Your task to perform on an android device: Show me productivity apps on the Play Store Image 0: 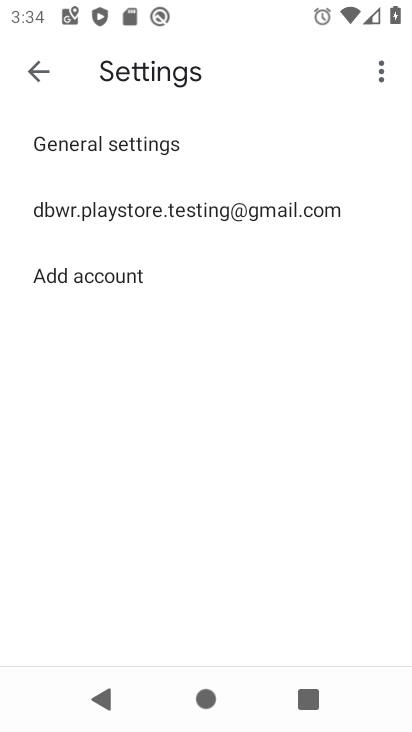
Step 0: press home button
Your task to perform on an android device: Show me productivity apps on the Play Store Image 1: 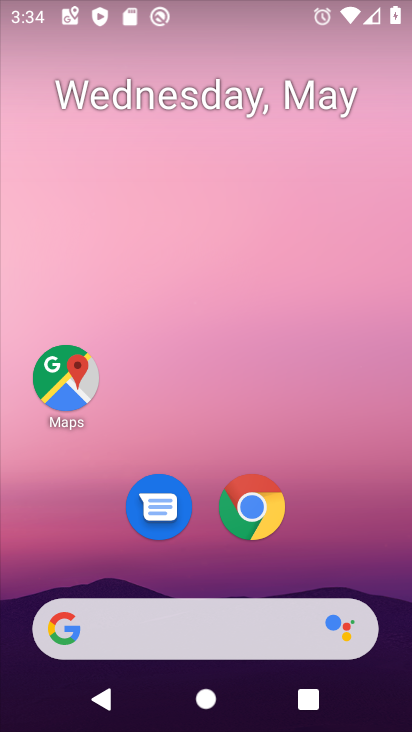
Step 1: drag from (205, 540) to (268, 86)
Your task to perform on an android device: Show me productivity apps on the Play Store Image 2: 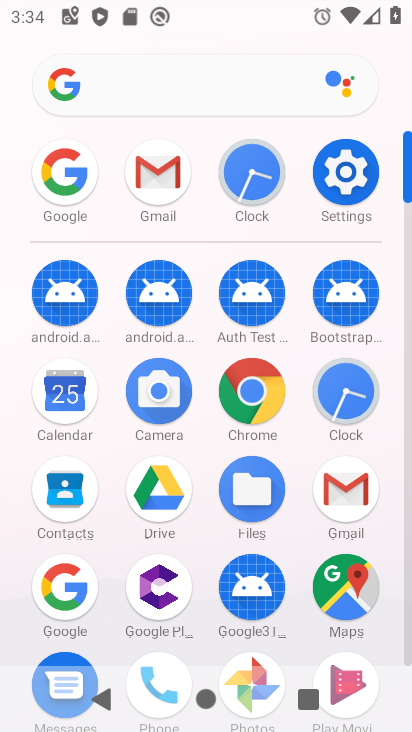
Step 2: drag from (203, 500) to (229, 288)
Your task to perform on an android device: Show me productivity apps on the Play Store Image 3: 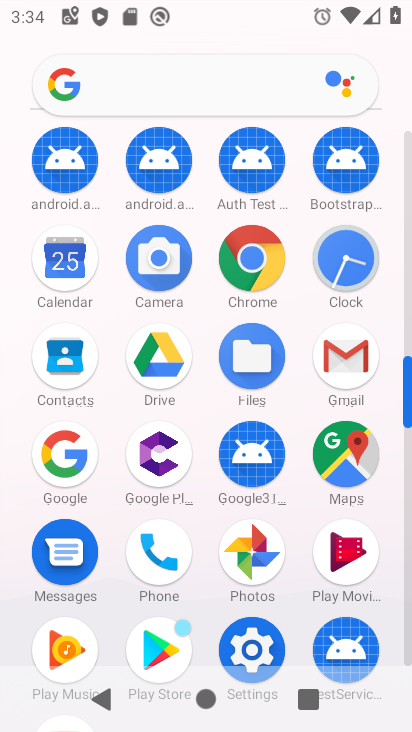
Step 3: click (150, 642)
Your task to perform on an android device: Show me productivity apps on the Play Store Image 4: 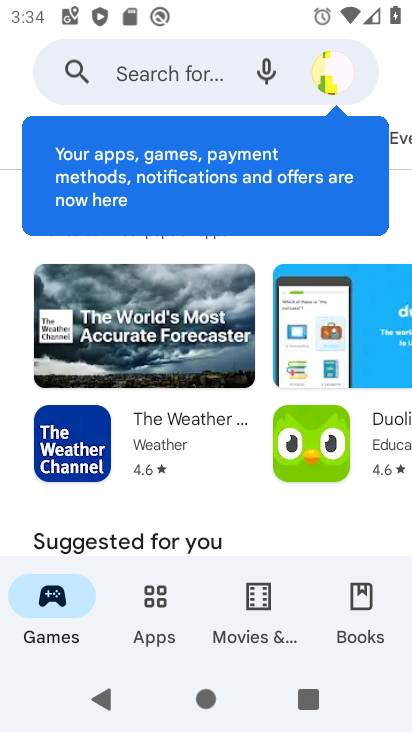
Step 4: click (149, 620)
Your task to perform on an android device: Show me productivity apps on the Play Store Image 5: 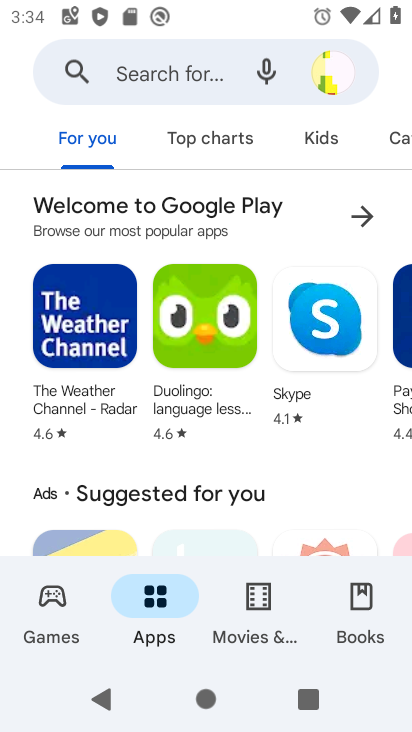
Step 5: drag from (353, 145) to (98, 148)
Your task to perform on an android device: Show me productivity apps on the Play Store Image 6: 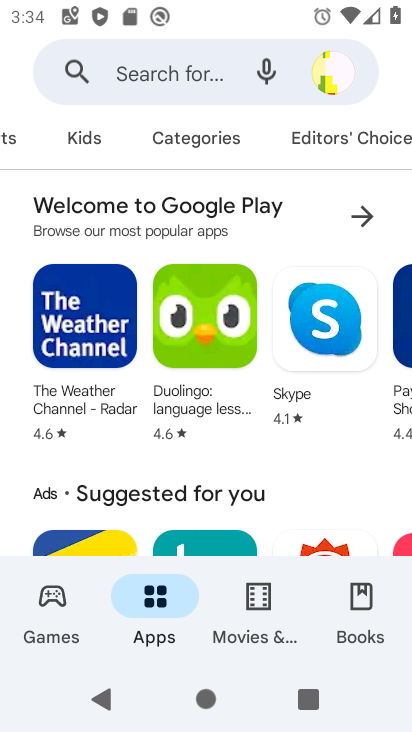
Step 6: click (181, 143)
Your task to perform on an android device: Show me productivity apps on the Play Store Image 7: 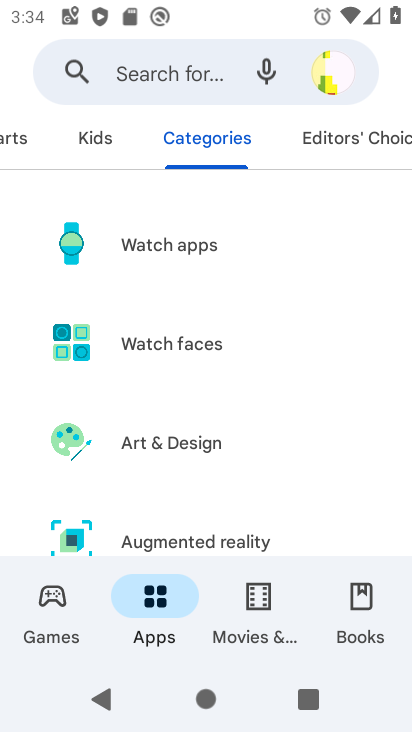
Step 7: drag from (264, 532) to (265, 70)
Your task to perform on an android device: Show me productivity apps on the Play Store Image 8: 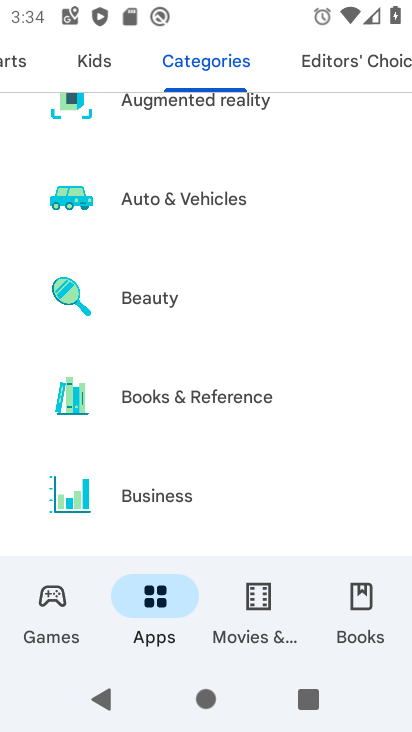
Step 8: drag from (277, 494) to (265, 89)
Your task to perform on an android device: Show me productivity apps on the Play Store Image 9: 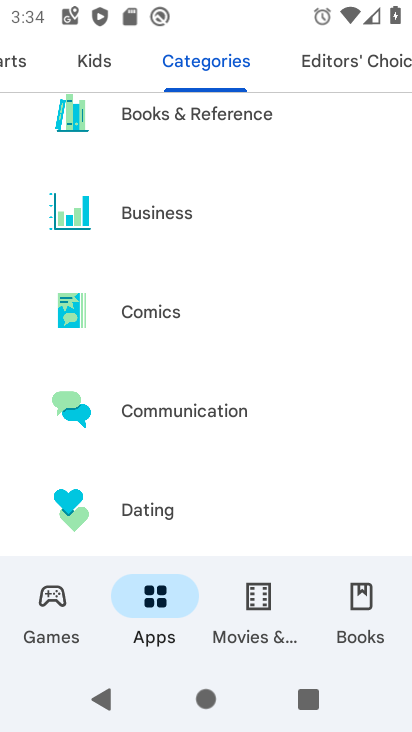
Step 9: drag from (249, 526) to (243, 148)
Your task to perform on an android device: Show me productivity apps on the Play Store Image 10: 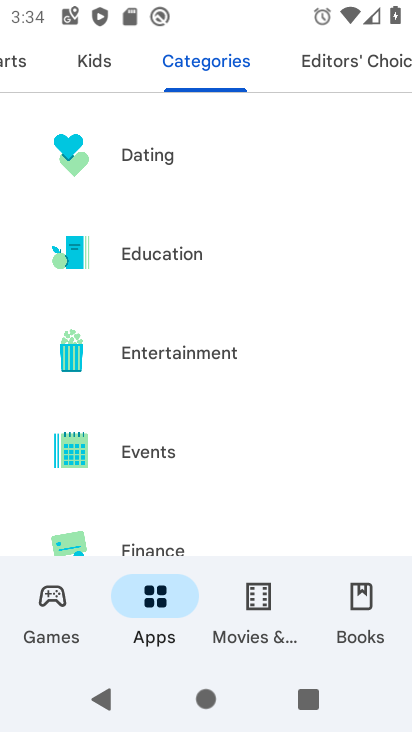
Step 10: drag from (263, 496) to (253, 161)
Your task to perform on an android device: Show me productivity apps on the Play Store Image 11: 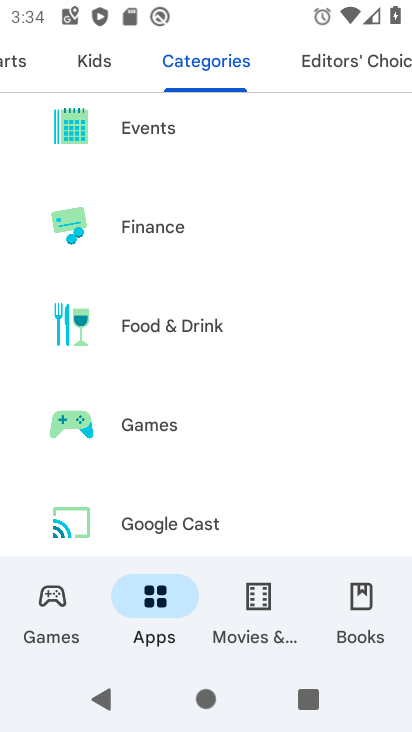
Step 11: drag from (287, 531) to (308, 152)
Your task to perform on an android device: Show me productivity apps on the Play Store Image 12: 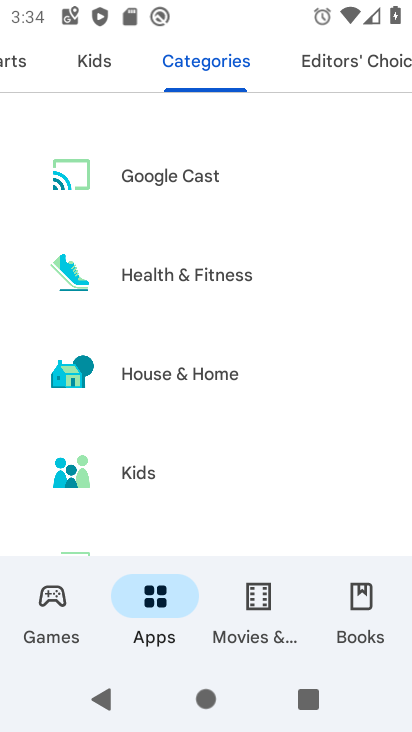
Step 12: drag from (271, 481) to (295, 227)
Your task to perform on an android device: Show me productivity apps on the Play Store Image 13: 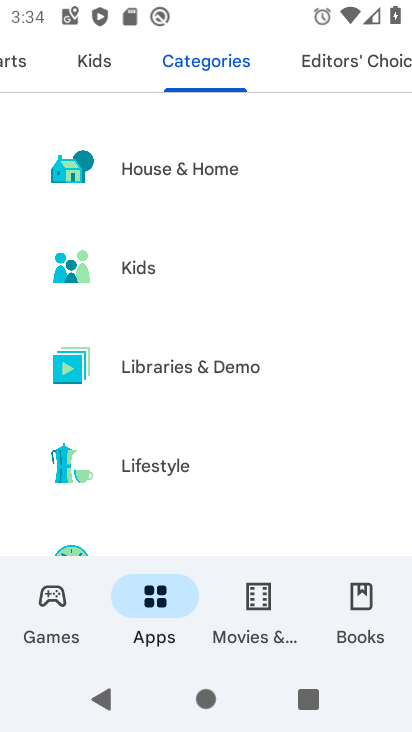
Step 13: drag from (262, 494) to (260, 191)
Your task to perform on an android device: Show me productivity apps on the Play Store Image 14: 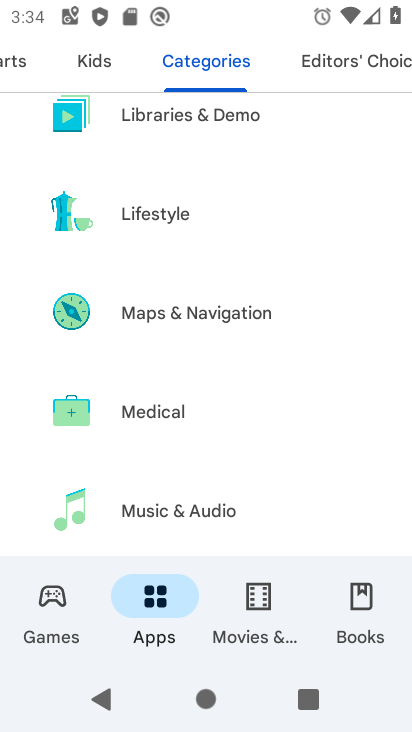
Step 14: drag from (271, 563) to (325, 185)
Your task to perform on an android device: Show me productivity apps on the Play Store Image 15: 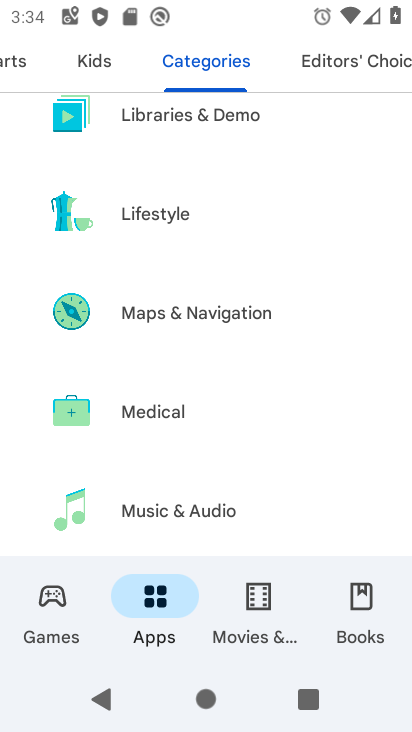
Step 15: drag from (251, 456) to (245, 148)
Your task to perform on an android device: Show me productivity apps on the Play Store Image 16: 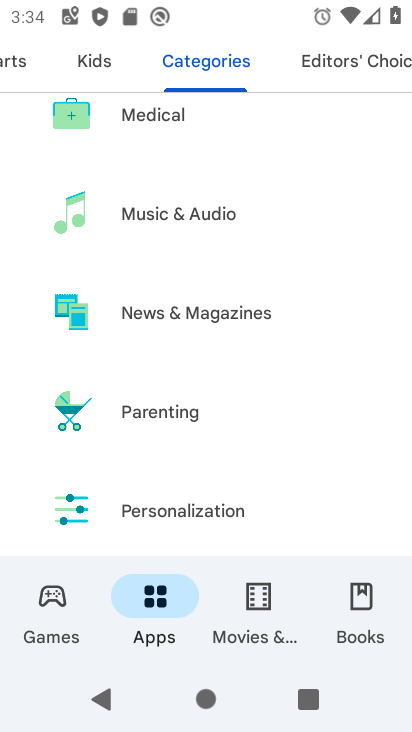
Step 16: drag from (250, 459) to (266, 182)
Your task to perform on an android device: Show me productivity apps on the Play Store Image 17: 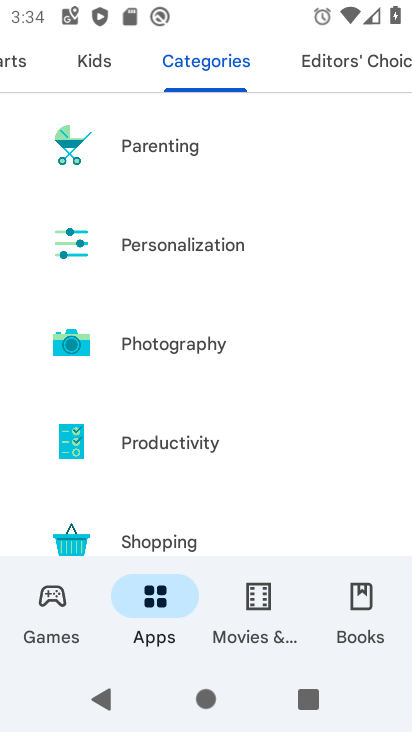
Step 17: click (193, 426)
Your task to perform on an android device: Show me productivity apps on the Play Store Image 18: 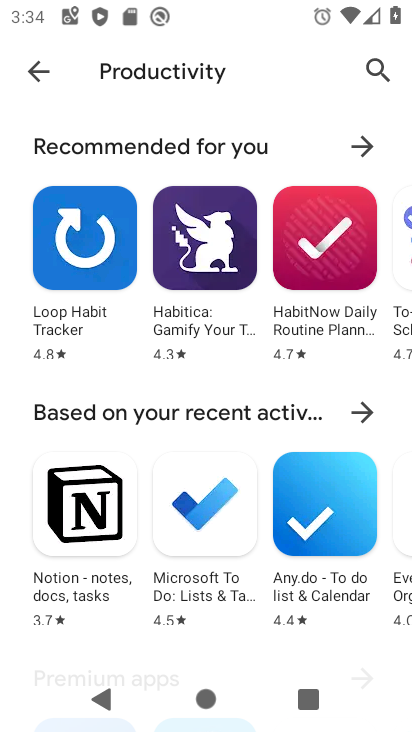
Step 18: task complete